Your task to perform on an android device: turn off airplane mode Image 0: 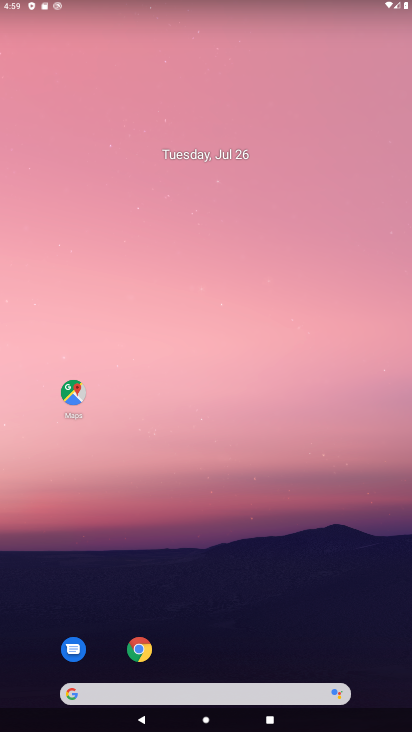
Step 0: drag from (201, 646) to (113, 133)
Your task to perform on an android device: turn off airplane mode Image 1: 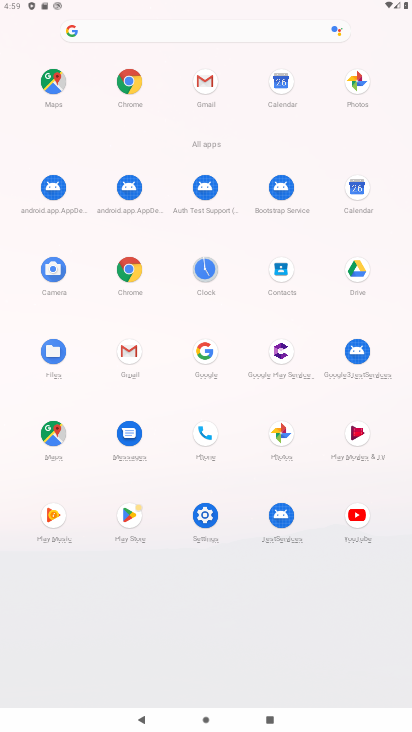
Step 1: click (194, 512)
Your task to perform on an android device: turn off airplane mode Image 2: 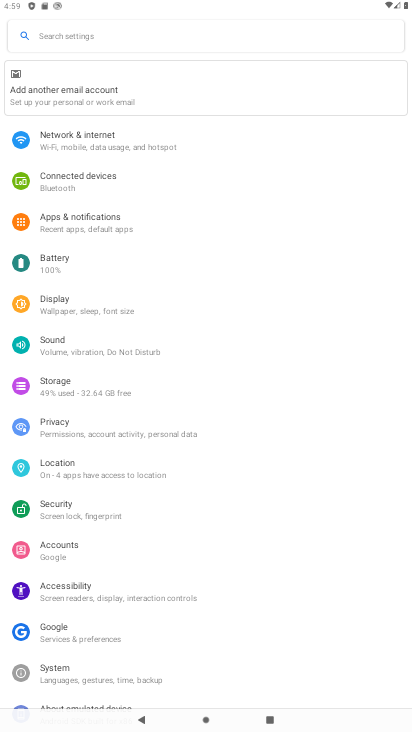
Step 2: click (132, 148)
Your task to perform on an android device: turn off airplane mode Image 3: 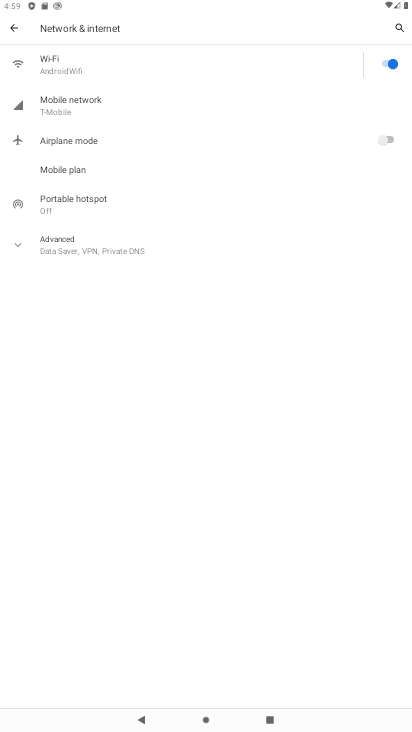
Step 3: task complete